Your task to perform on an android device: turn on showing notifications on the lock screen Image 0: 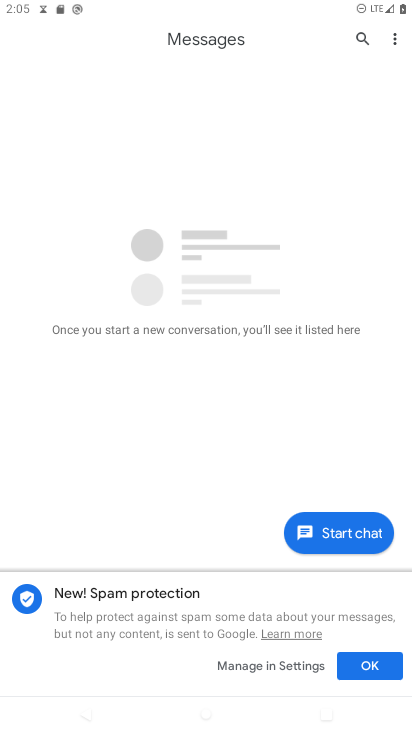
Step 0: press home button
Your task to perform on an android device: turn on showing notifications on the lock screen Image 1: 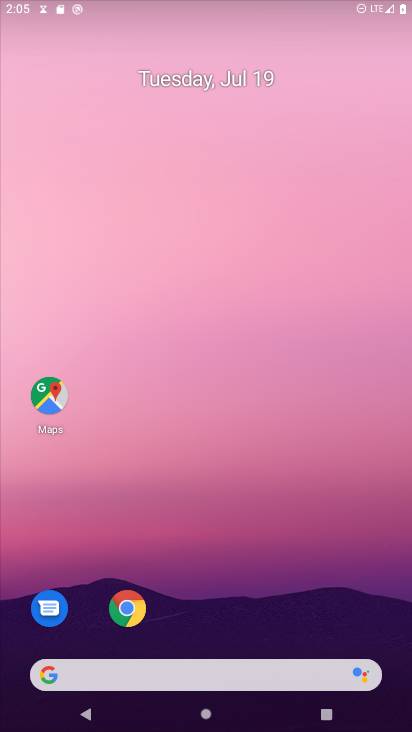
Step 1: drag from (270, 443) to (292, 0)
Your task to perform on an android device: turn on showing notifications on the lock screen Image 2: 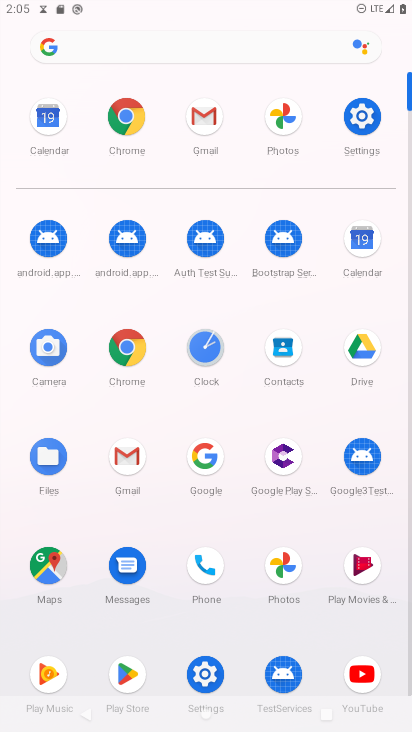
Step 2: click (357, 127)
Your task to perform on an android device: turn on showing notifications on the lock screen Image 3: 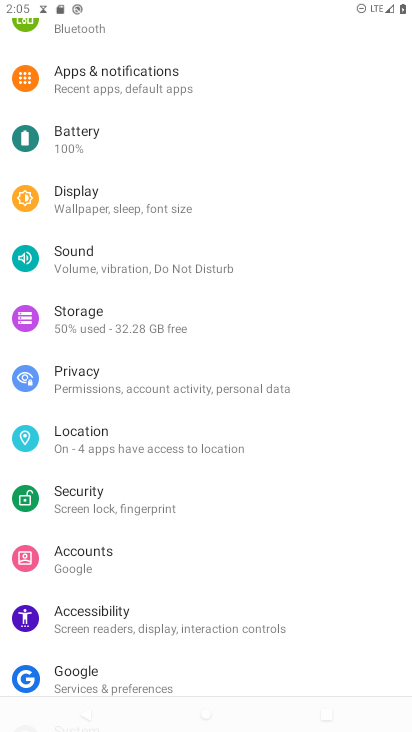
Step 3: click (151, 77)
Your task to perform on an android device: turn on showing notifications on the lock screen Image 4: 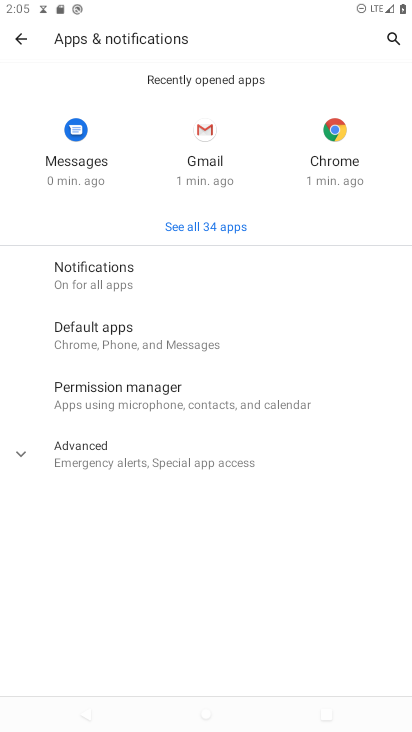
Step 4: click (101, 265)
Your task to perform on an android device: turn on showing notifications on the lock screen Image 5: 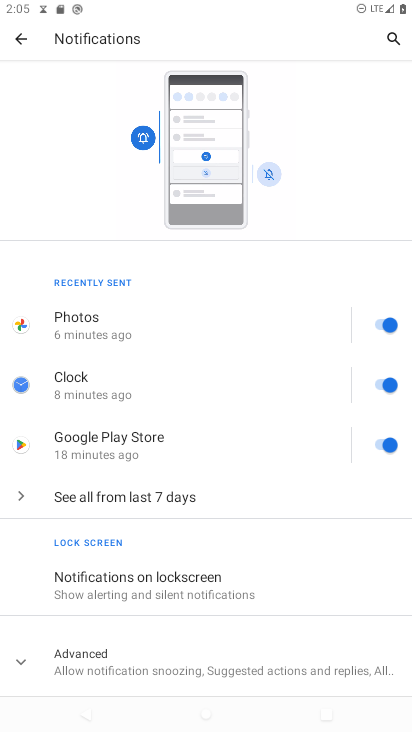
Step 5: click (124, 582)
Your task to perform on an android device: turn on showing notifications on the lock screen Image 6: 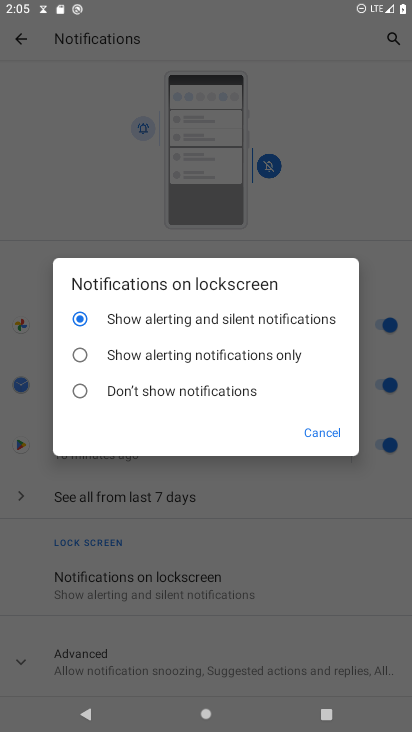
Step 6: task complete